Your task to perform on an android device: Open eBay Image 0: 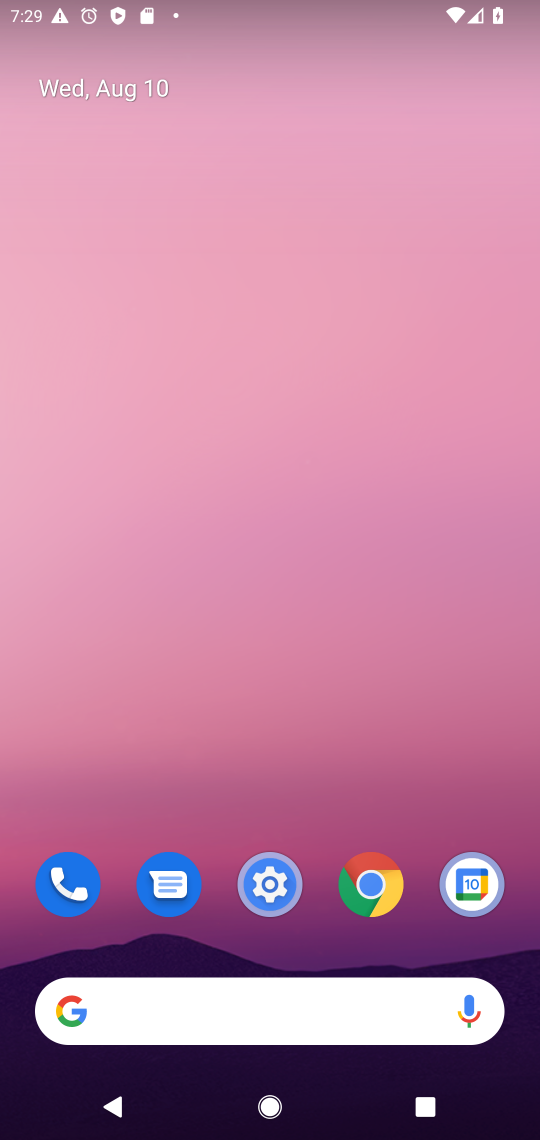
Step 0: click (142, 1024)
Your task to perform on an android device: Open eBay Image 1: 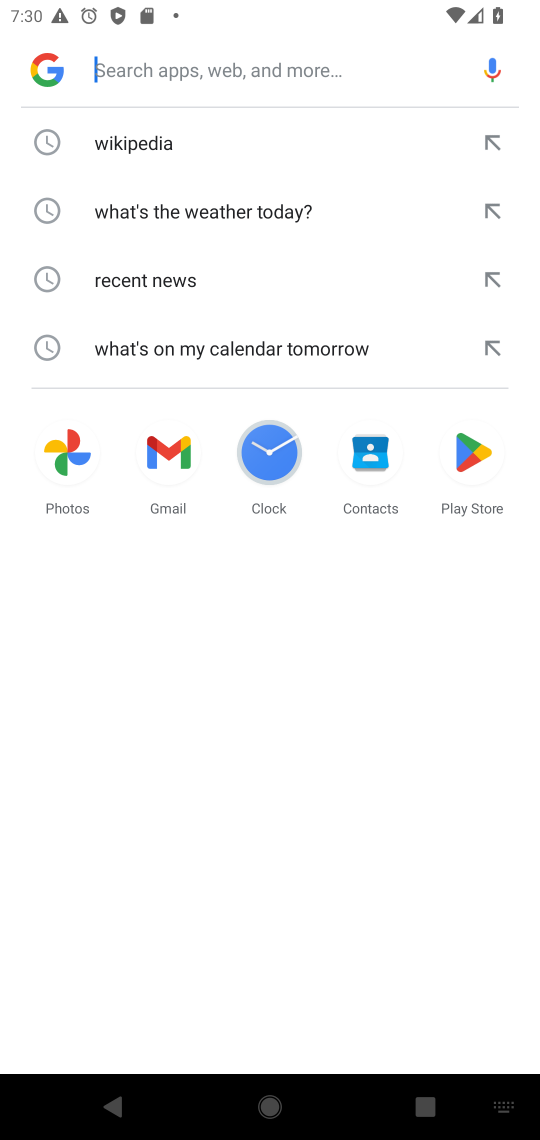
Step 1: type "eBay"
Your task to perform on an android device: Open eBay Image 2: 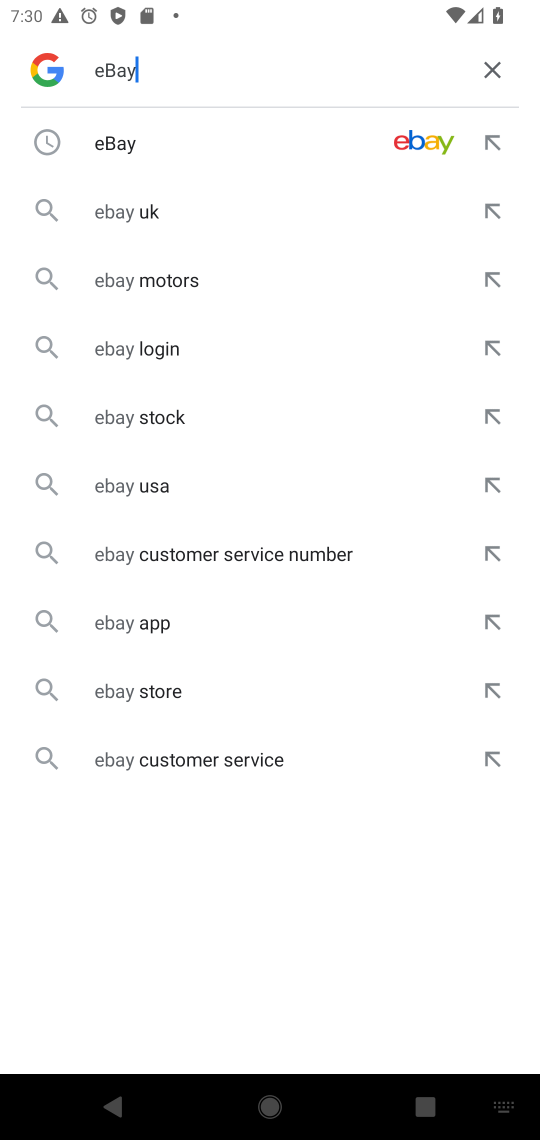
Step 2: click (118, 139)
Your task to perform on an android device: Open eBay Image 3: 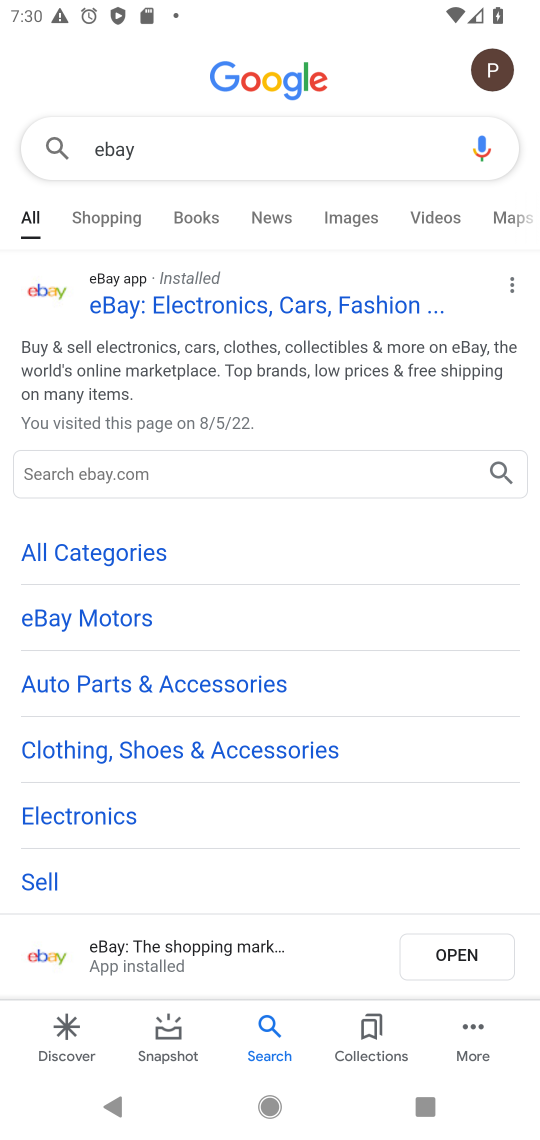
Step 3: task complete